Your task to perform on an android device: change keyboard looks Image 0: 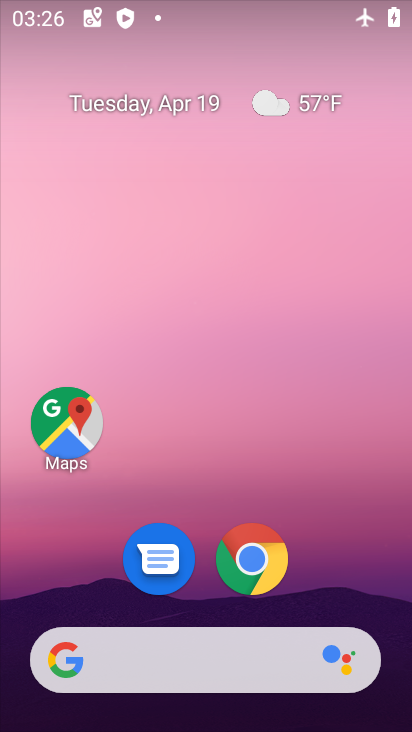
Step 0: drag from (203, 591) to (183, 92)
Your task to perform on an android device: change keyboard looks Image 1: 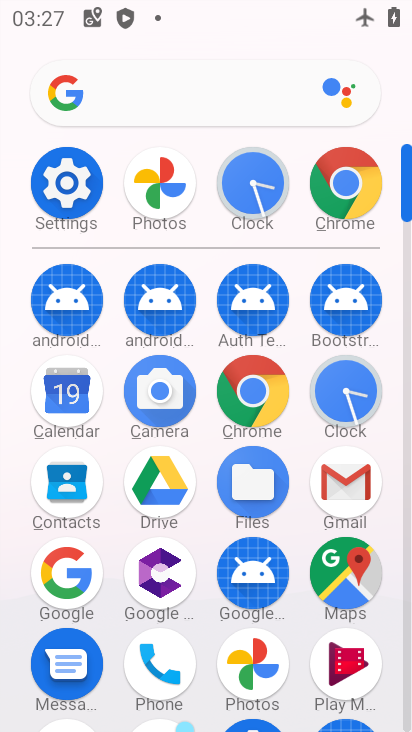
Step 1: click (78, 184)
Your task to perform on an android device: change keyboard looks Image 2: 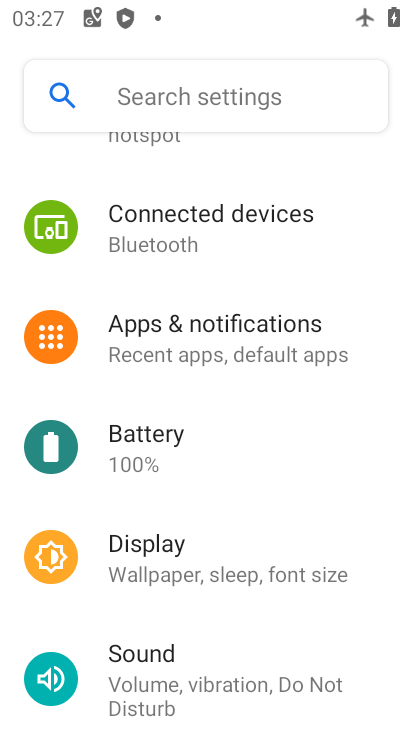
Step 2: drag from (231, 631) to (234, 126)
Your task to perform on an android device: change keyboard looks Image 3: 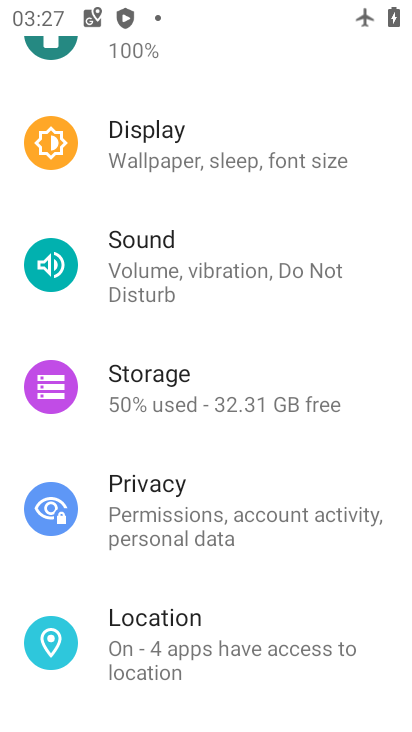
Step 3: drag from (181, 654) to (172, 89)
Your task to perform on an android device: change keyboard looks Image 4: 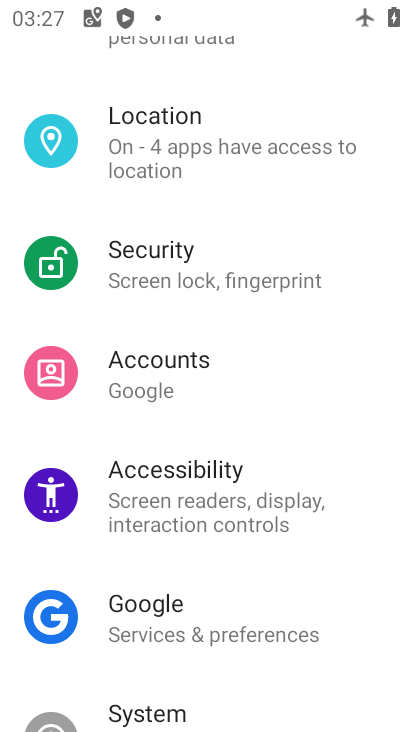
Step 4: click (182, 716)
Your task to perform on an android device: change keyboard looks Image 5: 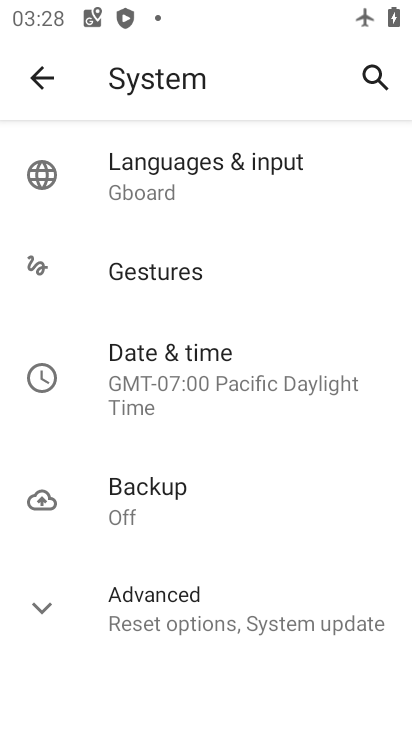
Step 5: click (193, 173)
Your task to perform on an android device: change keyboard looks Image 6: 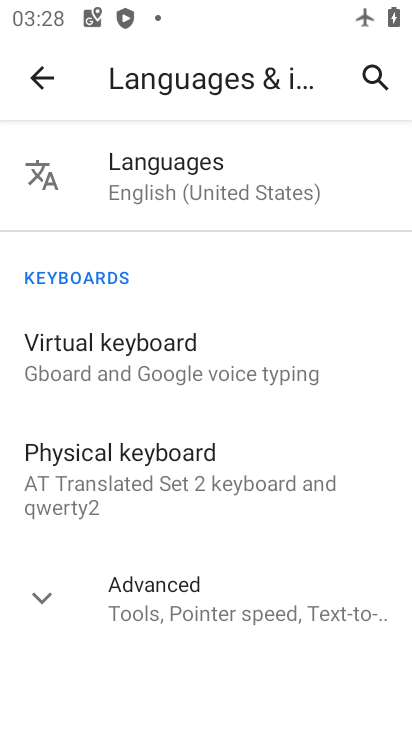
Step 6: click (191, 336)
Your task to perform on an android device: change keyboard looks Image 7: 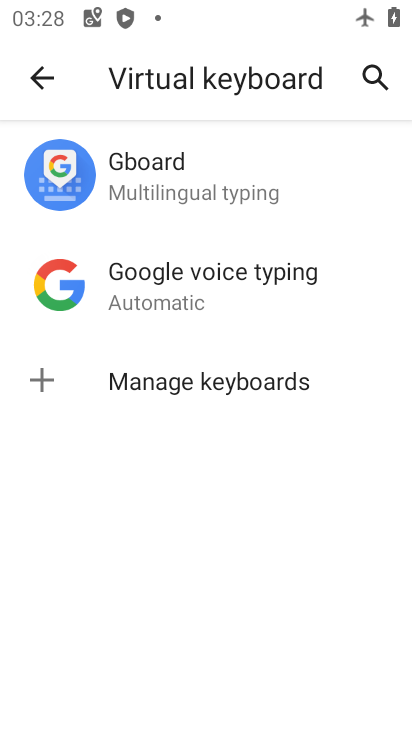
Step 7: click (190, 167)
Your task to perform on an android device: change keyboard looks Image 8: 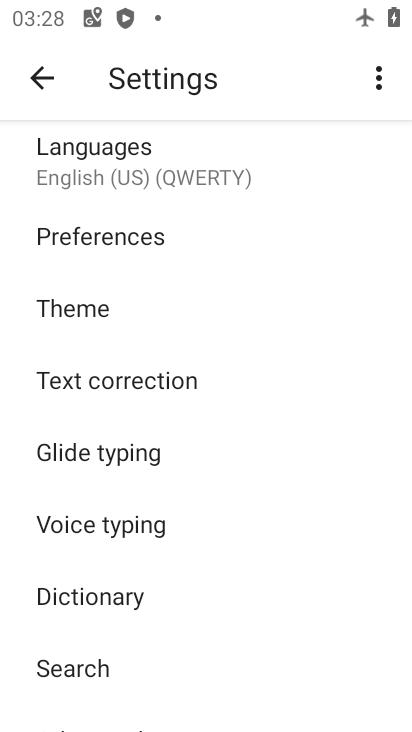
Step 8: click (117, 311)
Your task to perform on an android device: change keyboard looks Image 9: 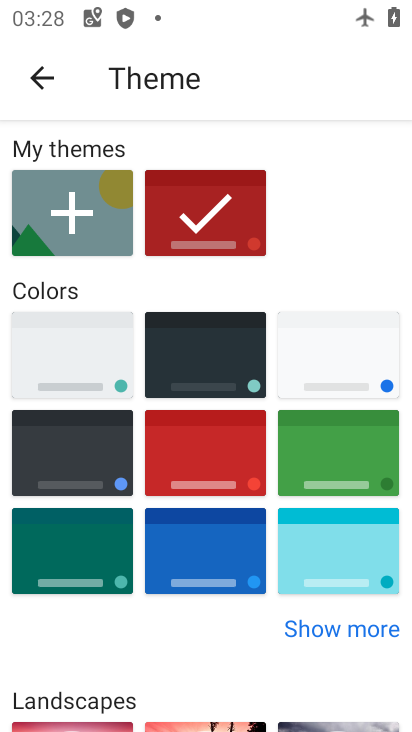
Step 9: click (339, 460)
Your task to perform on an android device: change keyboard looks Image 10: 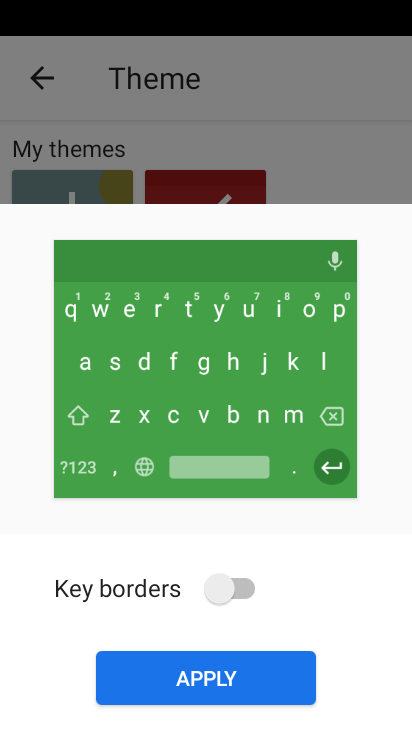
Step 10: click (172, 676)
Your task to perform on an android device: change keyboard looks Image 11: 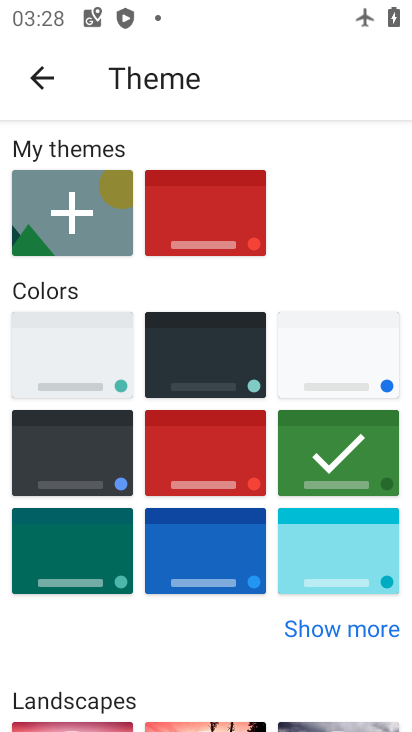
Step 11: task complete